Your task to perform on an android device: Open location settings Image 0: 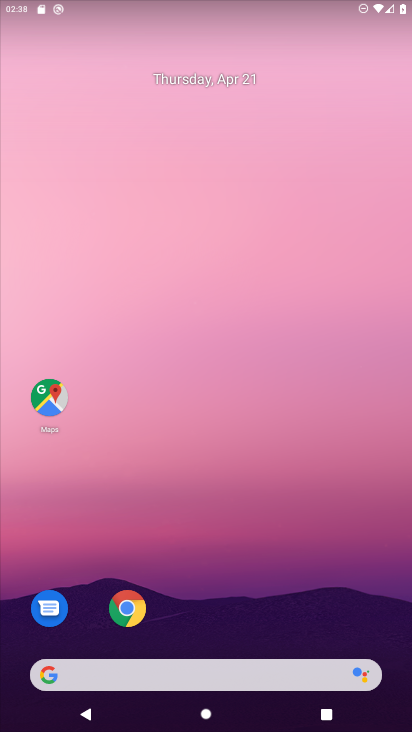
Step 0: drag from (225, 509) to (237, 225)
Your task to perform on an android device: Open location settings Image 1: 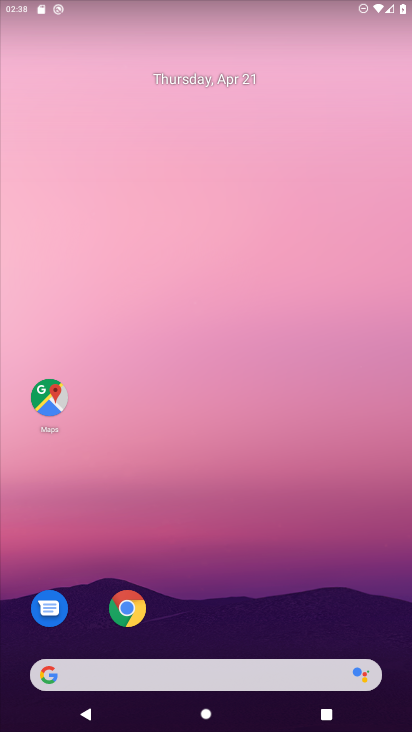
Step 1: drag from (272, 621) to (307, 270)
Your task to perform on an android device: Open location settings Image 2: 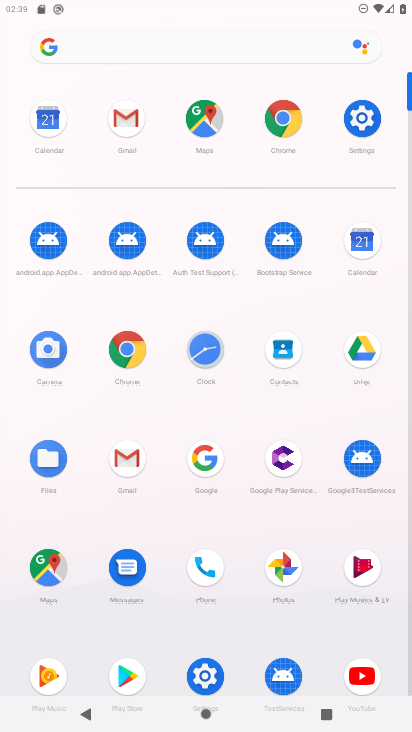
Step 2: click (362, 118)
Your task to perform on an android device: Open location settings Image 3: 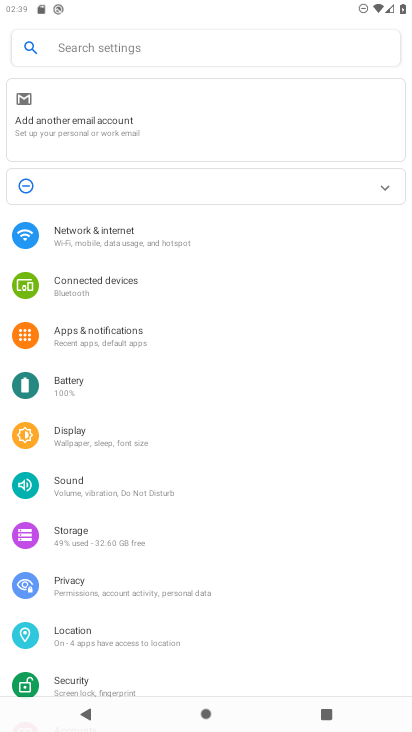
Step 3: click (112, 641)
Your task to perform on an android device: Open location settings Image 4: 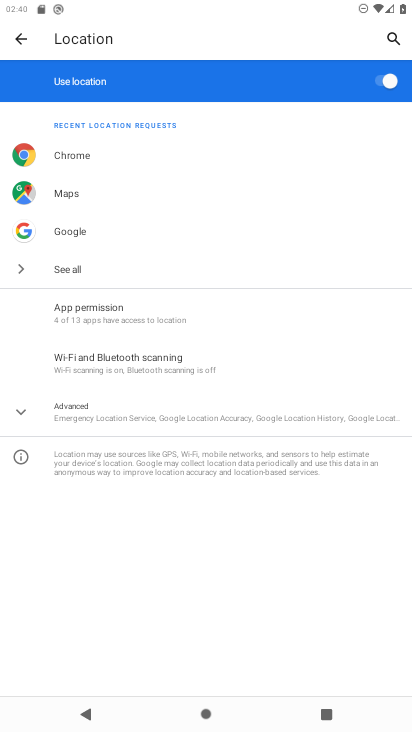
Step 4: task complete